Your task to perform on an android device: What's the weather like inToronto? Image 0: 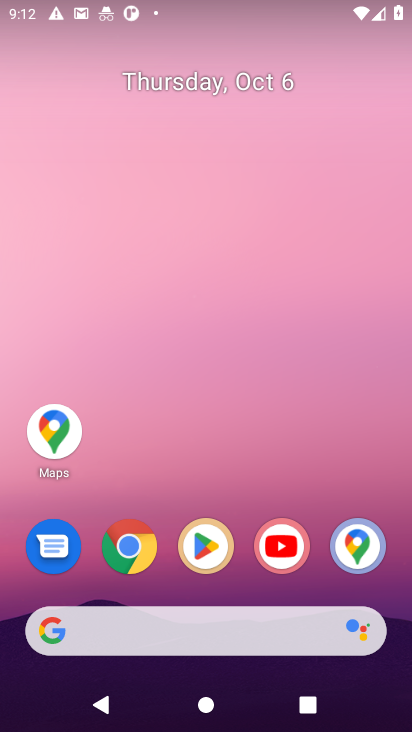
Step 0: click (127, 547)
Your task to perform on an android device: What's the weather like inToronto? Image 1: 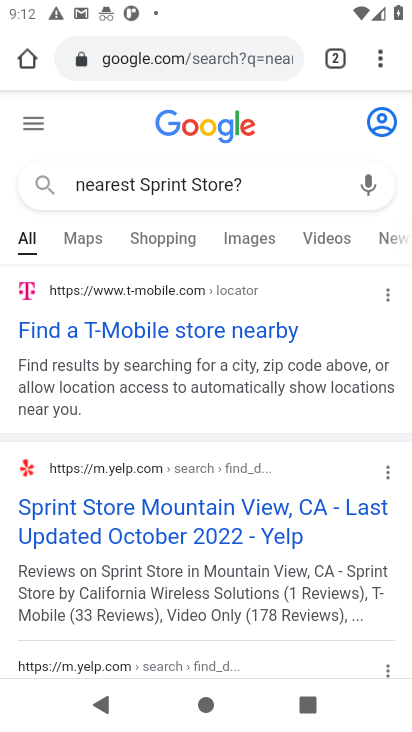
Step 1: click (247, 183)
Your task to perform on an android device: What's the weather like inToronto? Image 2: 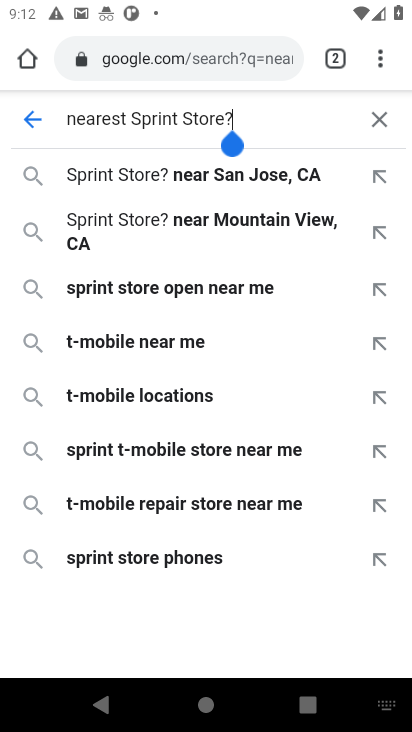
Step 2: click (375, 115)
Your task to perform on an android device: What's the weather like inToronto? Image 3: 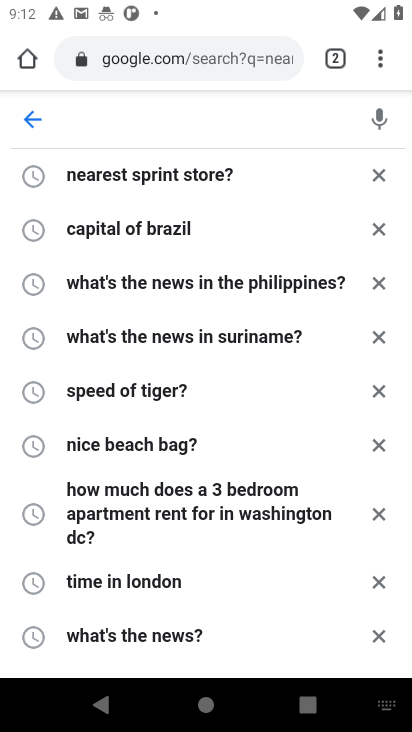
Step 3: type "weather in toronto?"
Your task to perform on an android device: What's the weather like inToronto? Image 4: 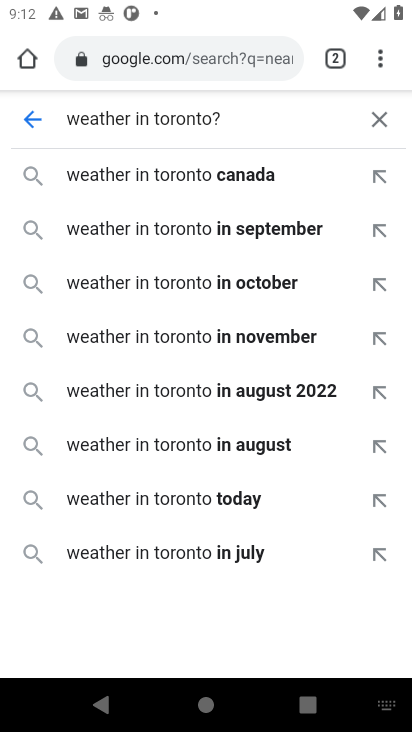
Step 4: click (147, 171)
Your task to perform on an android device: What's the weather like inToronto? Image 5: 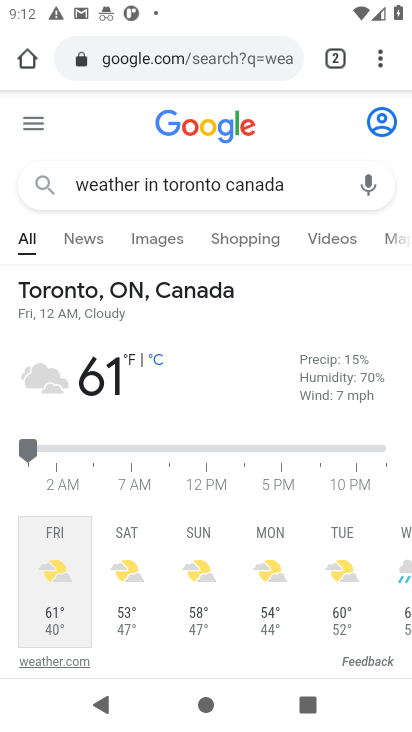
Step 5: task complete